Your task to perform on an android device: change the clock display to digital Image 0: 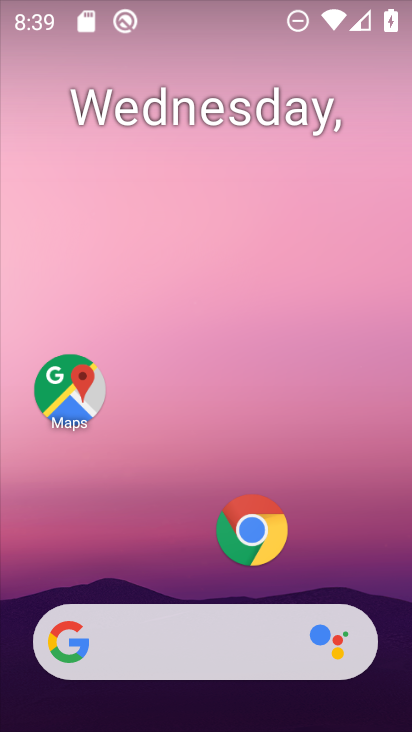
Step 0: drag from (144, 569) to (255, 65)
Your task to perform on an android device: change the clock display to digital Image 1: 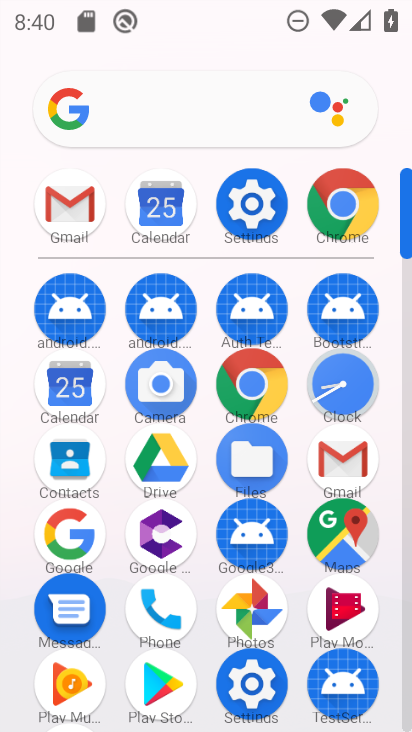
Step 1: click (342, 386)
Your task to perform on an android device: change the clock display to digital Image 2: 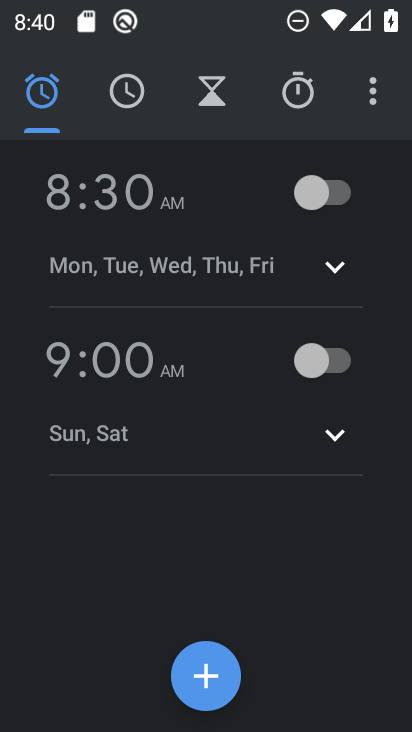
Step 2: click (371, 86)
Your task to perform on an android device: change the clock display to digital Image 3: 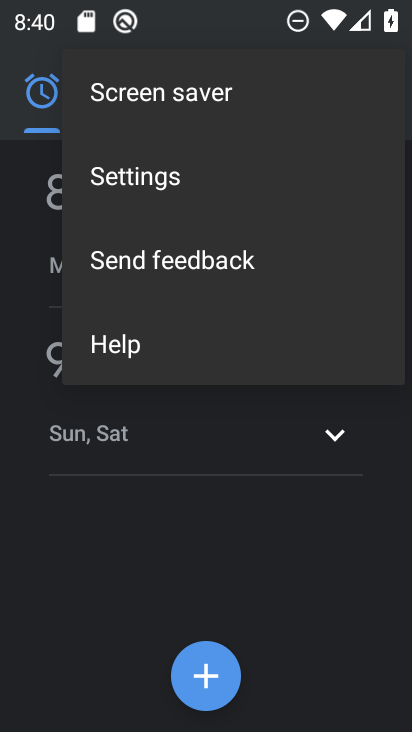
Step 3: click (183, 173)
Your task to perform on an android device: change the clock display to digital Image 4: 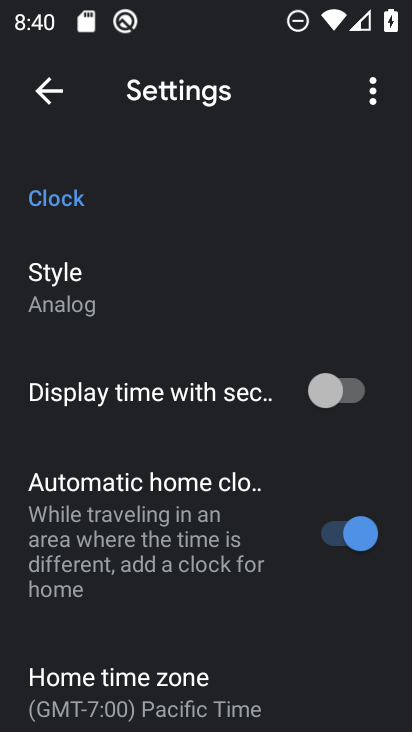
Step 4: click (79, 288)
Your task to perform on an android device: change the clock display to digital Image 5: 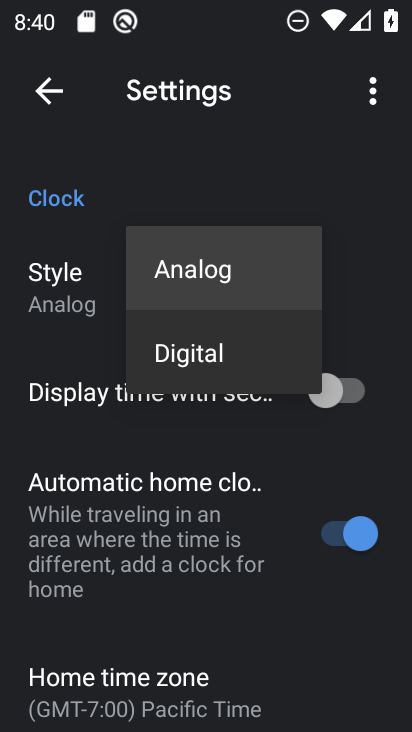
Step 5: click (189, 350)
Your task to perform on an android device: change the clock display to digital Image 6: 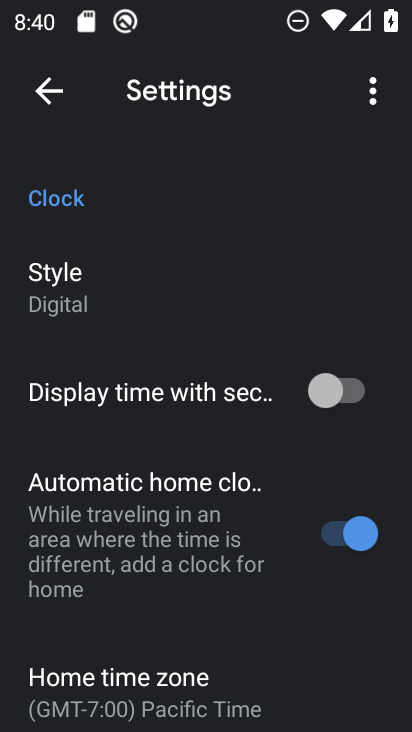
Step 6: task complete